Your task to perform on an android device: turn on wifi Image 0: 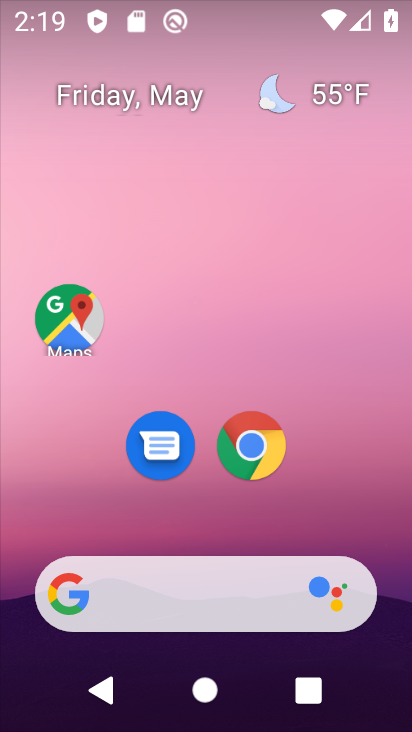
Step 0: drag from (338, 508) to (345, 140)
Your task to perform on an android device: turn on wifi Image 1: 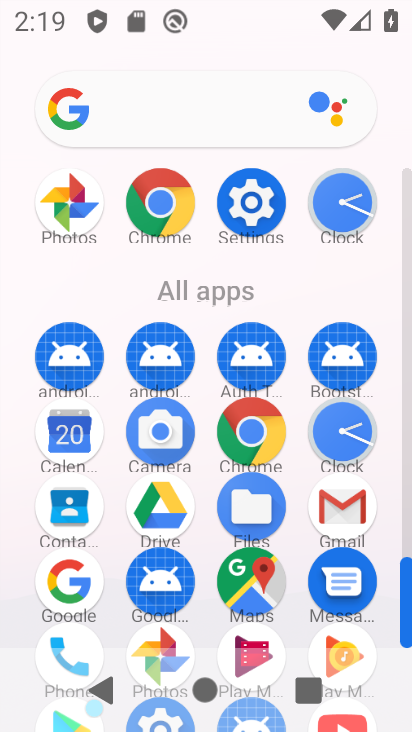
Step 1: click (268, 202)
Your task to perform on an android device: turn on wifi Image 2: 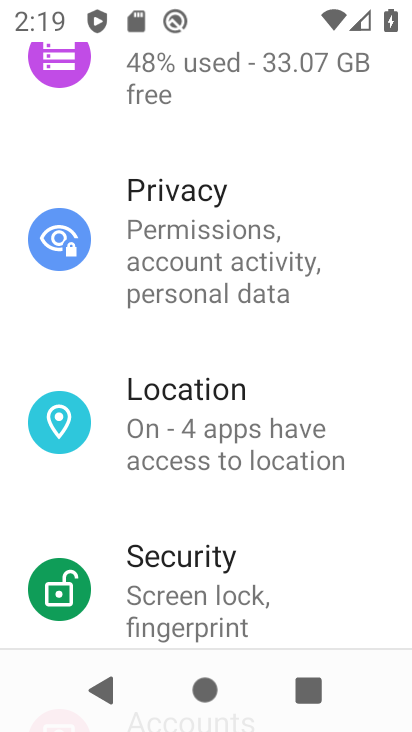
Step 2: drag from (268, 183) to (297, 554)
Your task to perform on an android device: turn on wifi Image 3: 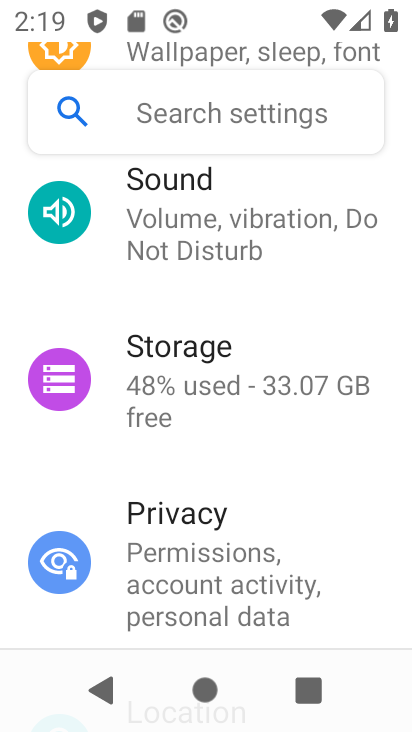
Step 3: drag from (247, 224) to (320, 627)
Your task to perform on an android device: turn on wifi Image 4: 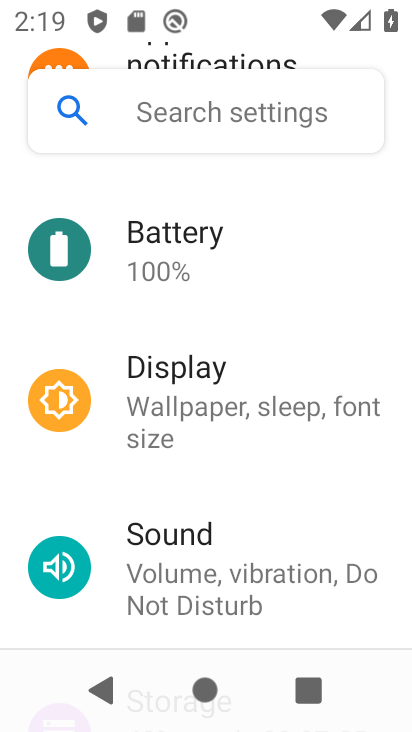
Step 4: drag from (244, 215) to (353, 626)
Your task to perform on an android device: turn on wifi Image 5: 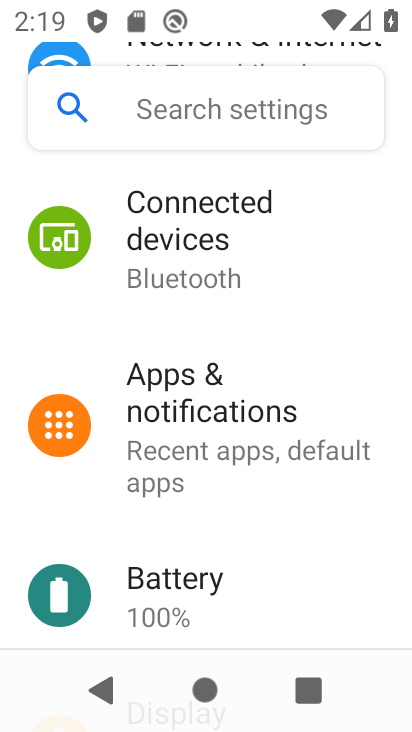
Step 5: drag from (243, 210) to (330, 610)
Your task to perform on an android device: turn on wifi Image 6: 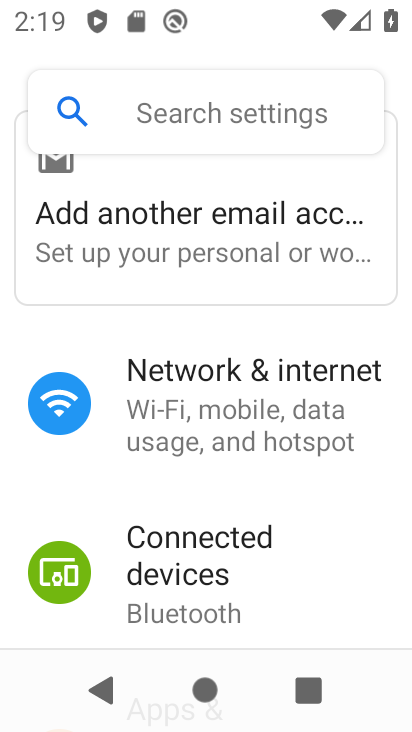
Step 6: click (221, 409)
Your task to perform on an android device: turn on wifi Image 7: 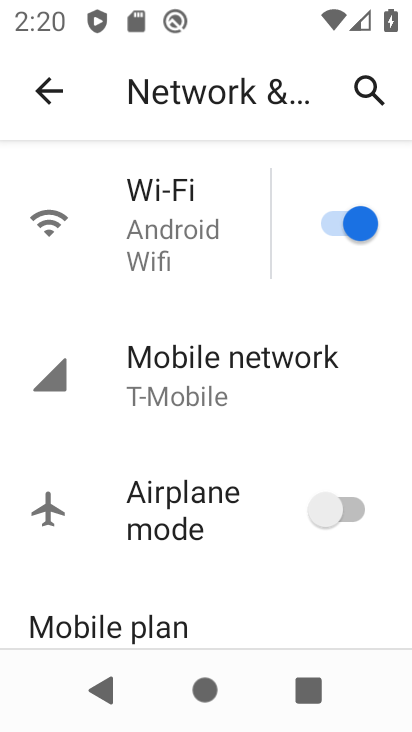
Step 7: task complete